Your task to perform on an android device: open chrome privacy settings Image 0: 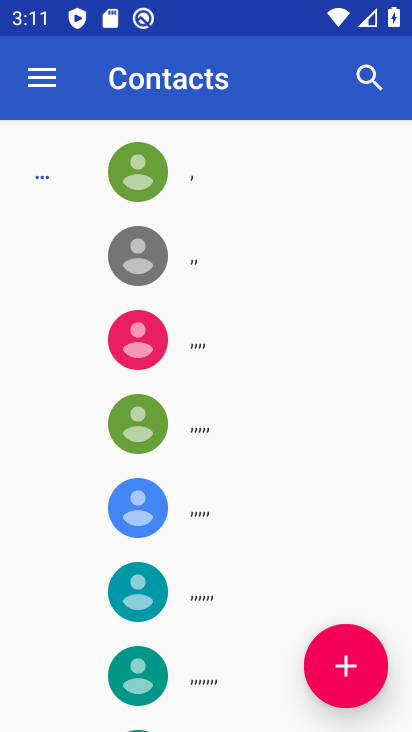
Step 0: press home button
Your task to perform on an android device: open chrome privacy settings Image 1: 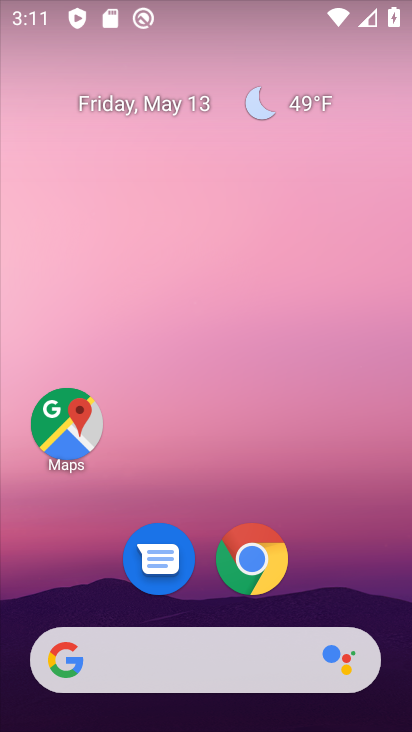
Step 1: click (260, 561)
Your task to perform on an android device: open chrome privacy settings Image 2: 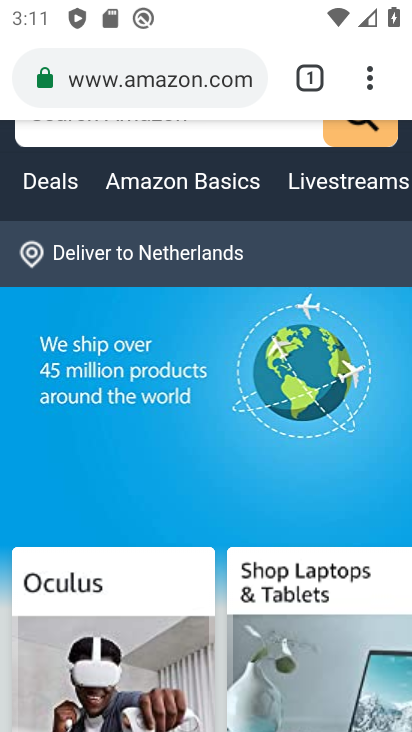
Step 2: click (368, 85)
Your task to perform on an android device: open chrome privacy settings Image 3: 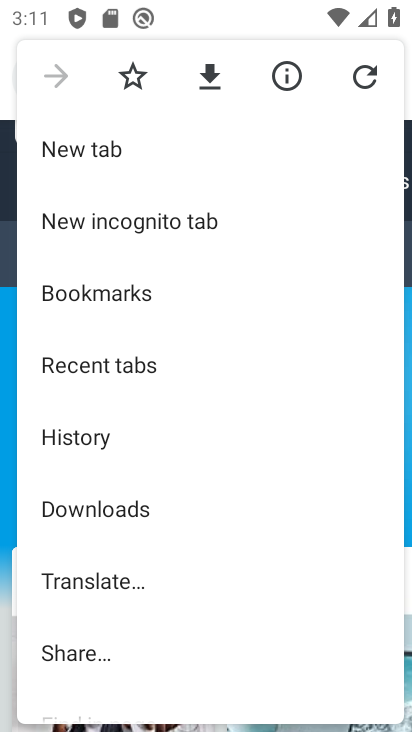
Step 3: drag from (205, 662) to (195, 288)
Your task to perform on an android device: open chrome privacy settings Image 4: 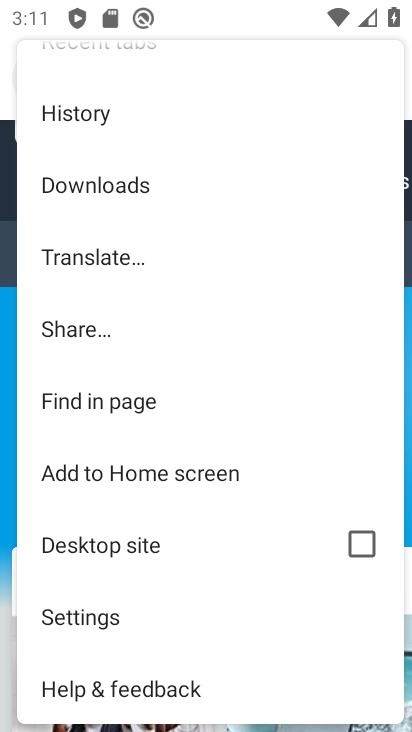
Step 4: click (85, 614)
Your task to perform on an android device: open chrome privacy settings Image 5: 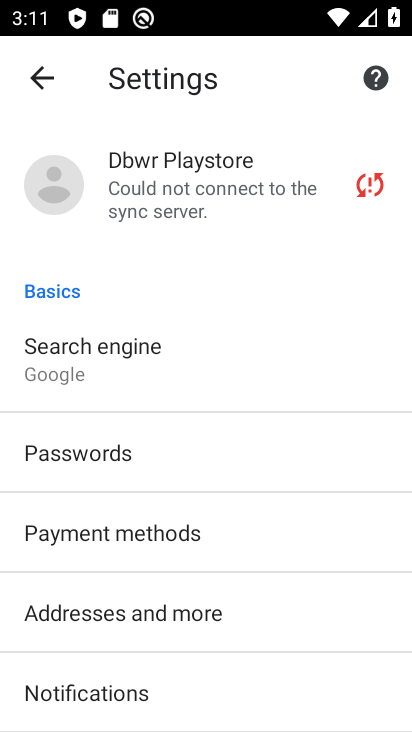
Step 5: drag from (282, 650) to (199, 243)
Your task to perform on an android device: open chrome privacy settings Image 6: 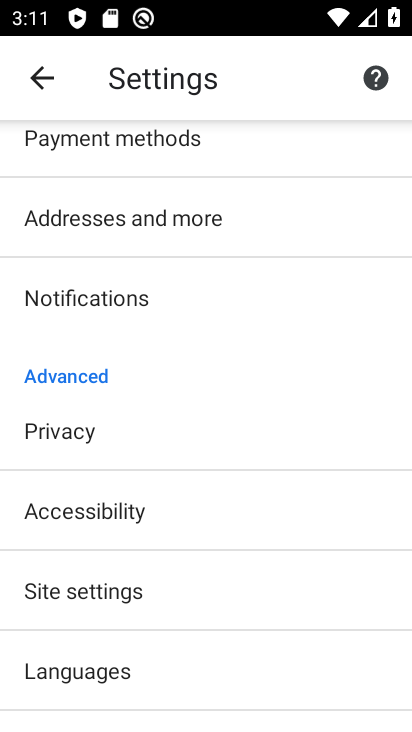
Step 6: click (58, 442)
Your task to perform on an android device: open chrome privacy settings Image 7: 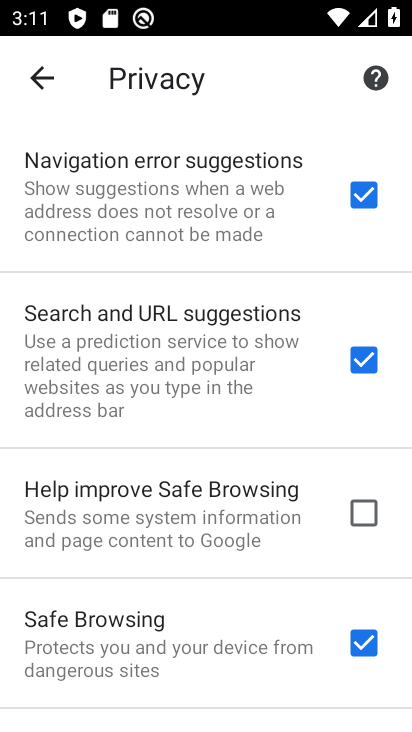
Step 7: task complete